Your task to perform on an android device: What's the weather? Image 0: 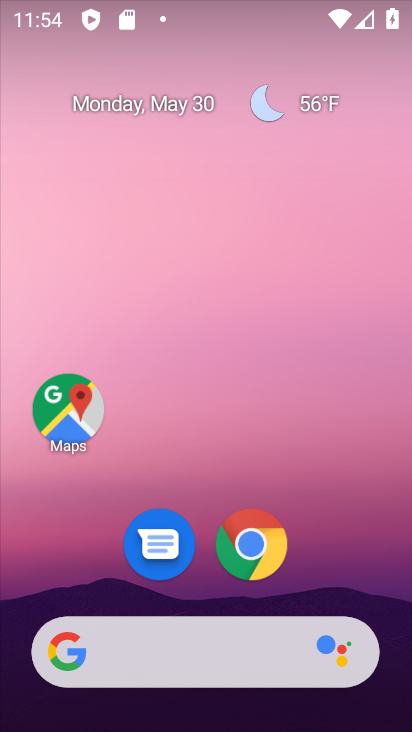
Step 0: click (218, 649)
Your task to perform on an android device: What's the weather? Image 1: 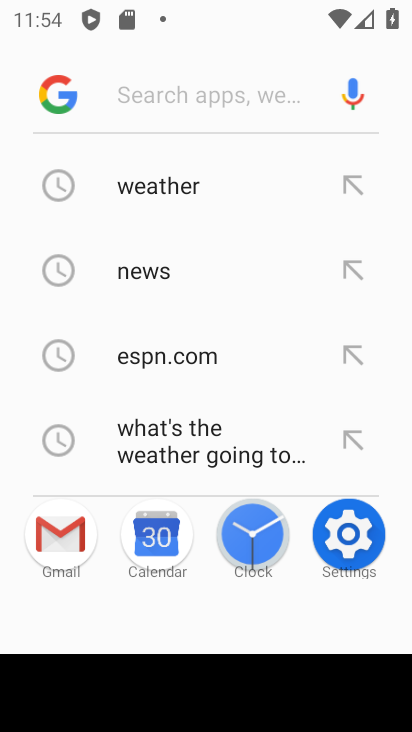
Step 1: click (157, 188)
Your task to perform on an android device: What's the weather? Image 2: 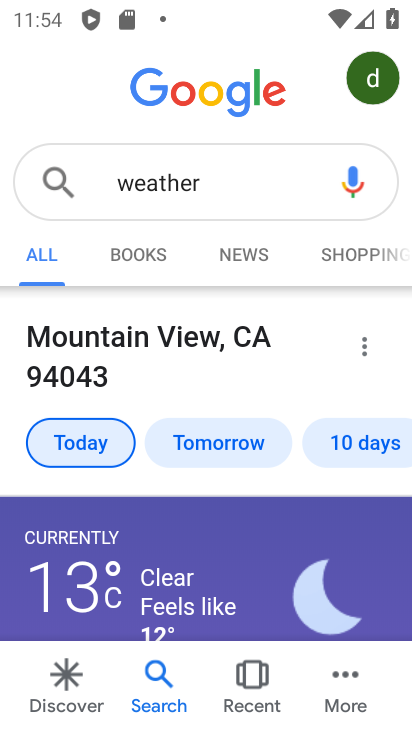
Step 2: task complete